Your task to perform on an android device: What's on my calendar tomorrow? Image 0: 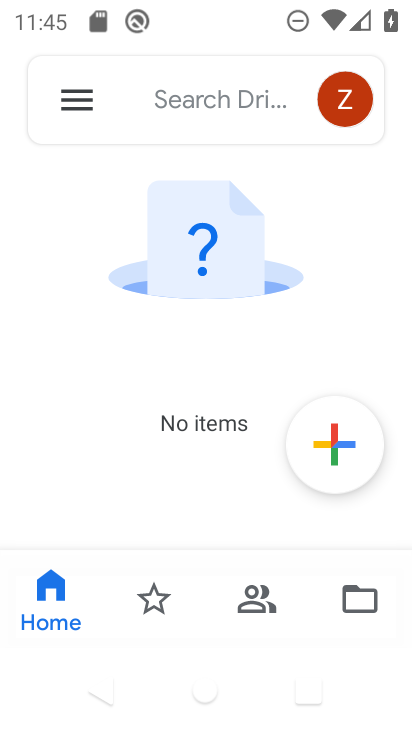
Step 0: press home button
Your task to perform on an android device: What's on my calendar tomorrow? Image 1: 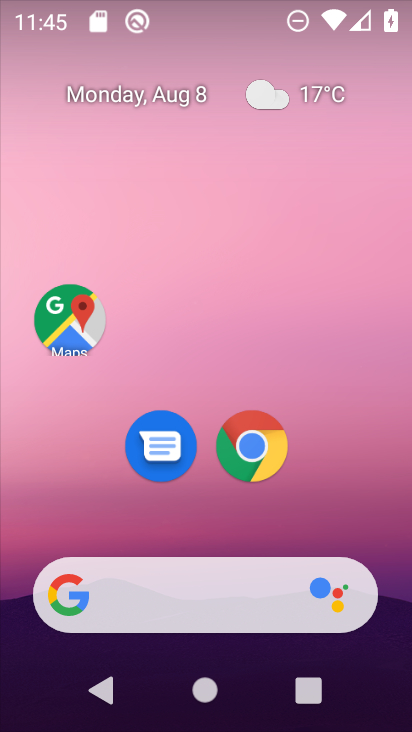
Step 1: drag from (392, 615) to (367, 118)
Your task to perform on an android device: What's on my calendar tomorrow? Image 2: 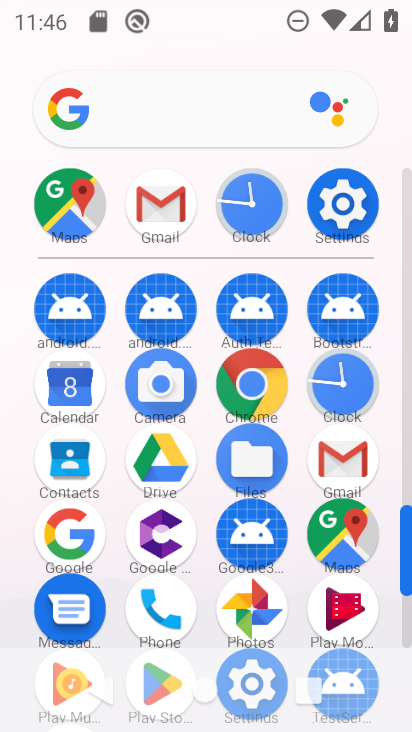
Step 2: click (70, 387)
Your task to perform on an android device: What's on my calendar tomorrow? Image 3: 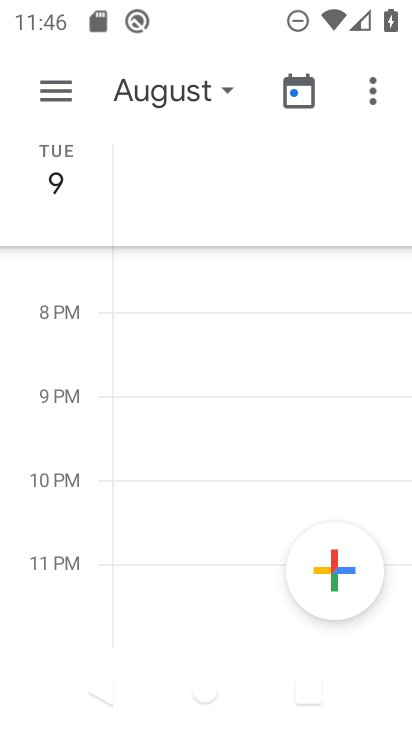
Step 3: click (60, 89)
Your task to perform on an android device: What's on my calendar tomorrow? Image 4: 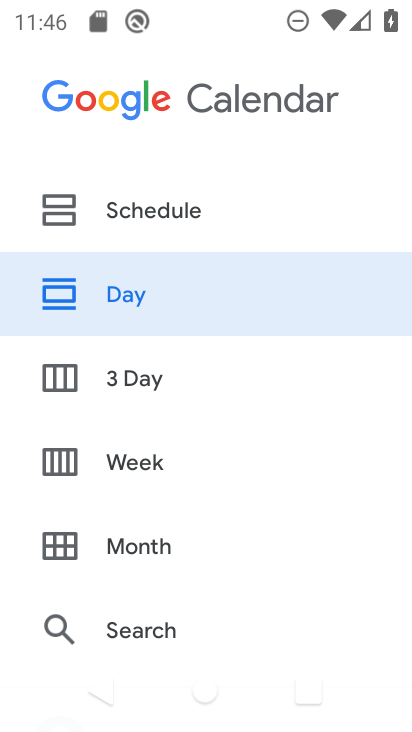
Step 4: click (171, 271)
Your task to perform on an android device: What's on my calendar tomorrow? Image 5: 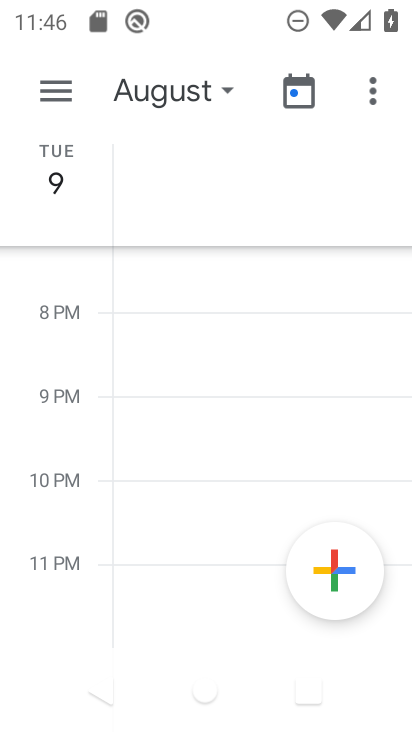
Step 5: task complete